Your task to perform on an android device: Go to wifi settings Image 0: 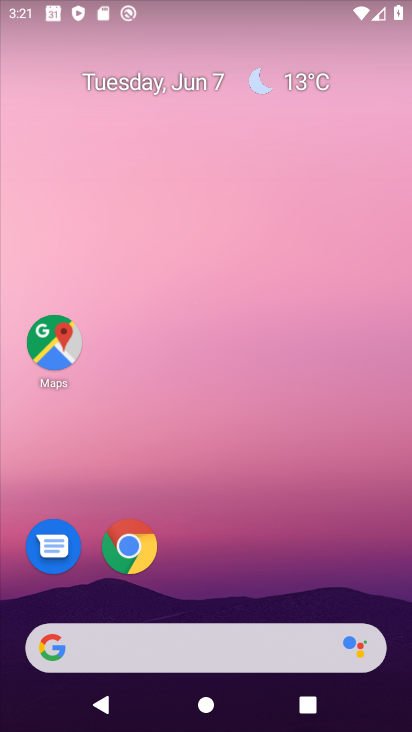
Step 0: drag from (188, 14) to (213, 629)
Your task to perform on an android device: Go to wifi settings Image 1: 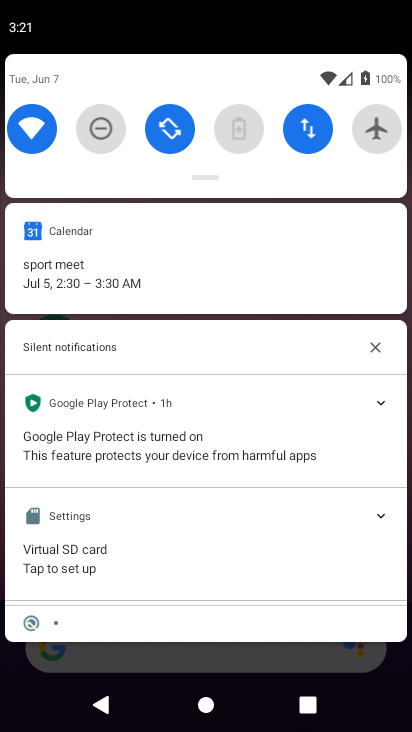
Step 1: click (44, 123)
Your task to perform on an android device: Go to wifi settings Image 2: 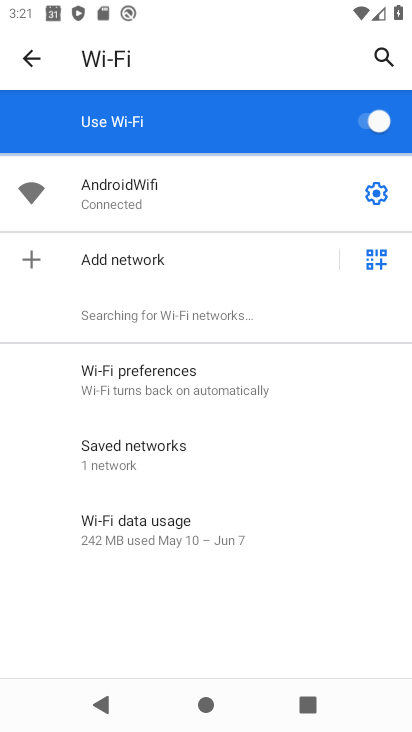
Step 2: task complete